Your task to perform on an android device: Open Google Maps and go to "Timeline" Image 0: 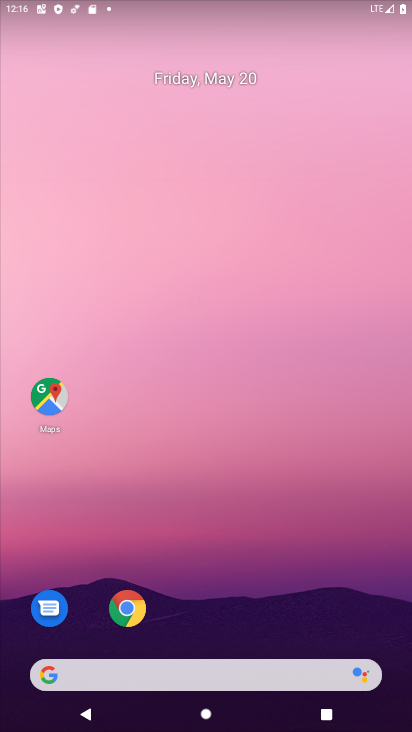
Step 0: drag from (317, 564) to (297, 186)
Your task to perform on an android device: Open Google Maps and go to "Timeline" Image 1: 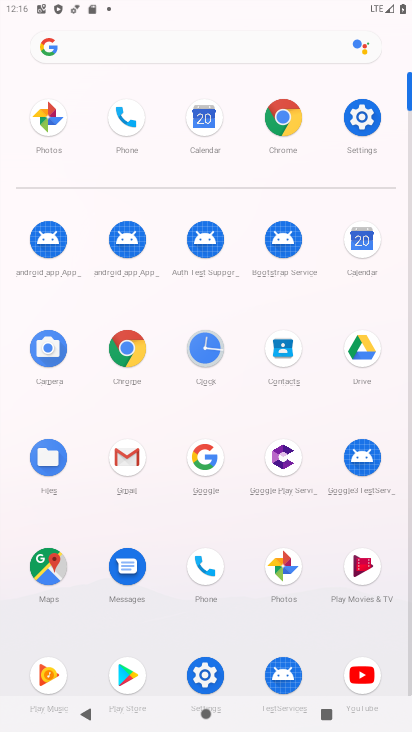
Step 1: click (48, 564)
Your task to perform on an android device: Open Google Maps and go to "Timeline" Image 2: 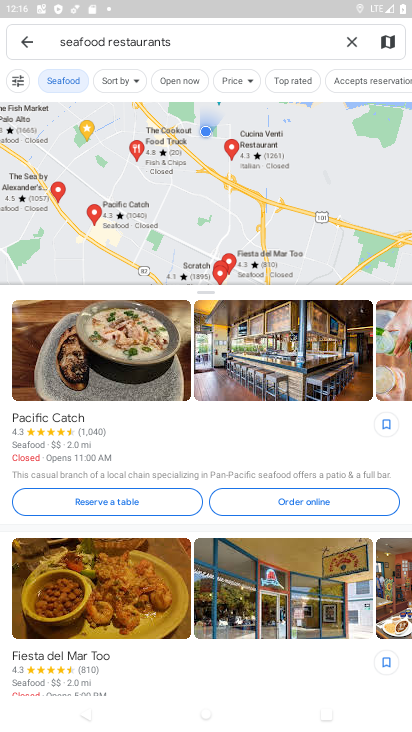
Step 2: click (26, 42)
Your task to perform on an android device: Open Google Maps and go to "Timeline" Image 3: 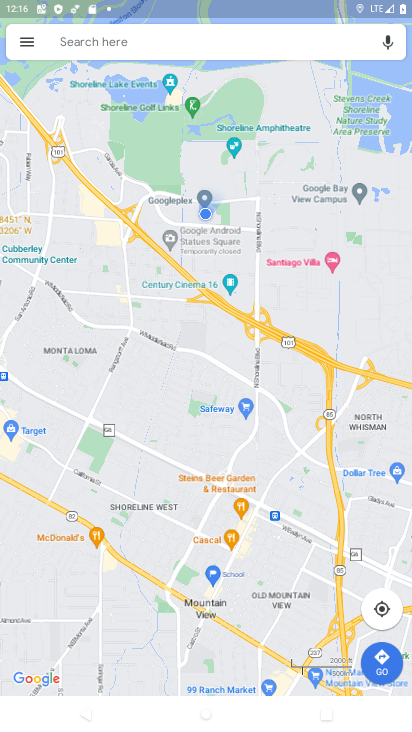
Step 3: click (24, 45)
Your task to perform on an android device: Open Google Maps and go to "Timeline" Image 4: 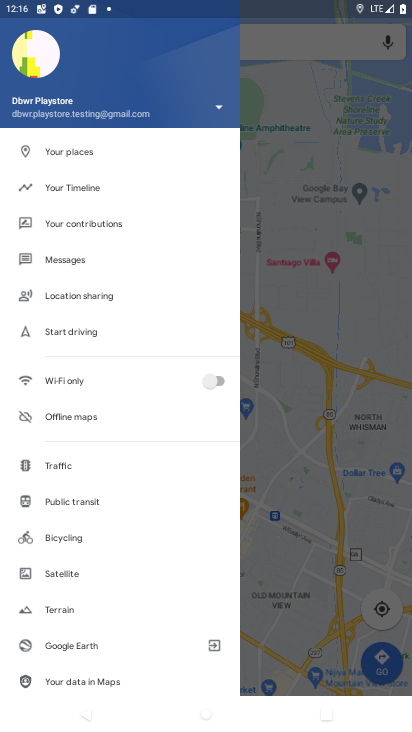
Step 4: click (69, 194)
Your task to perform on an android device: Open Google Maps and go to "Timeline" Image 5: 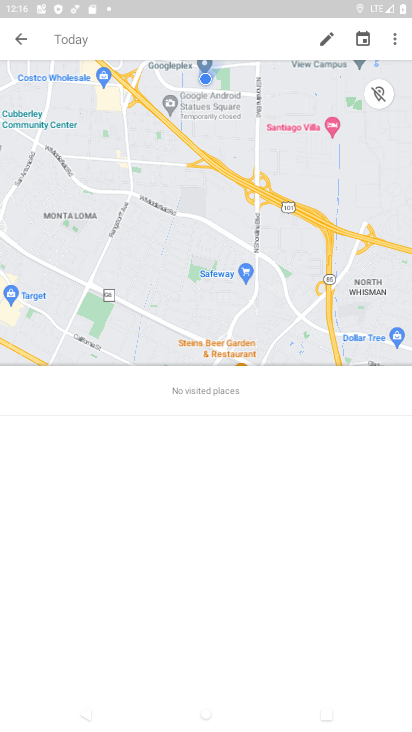
Step 5: task complete